Your task to perform on an android device: Open settings Image 0: 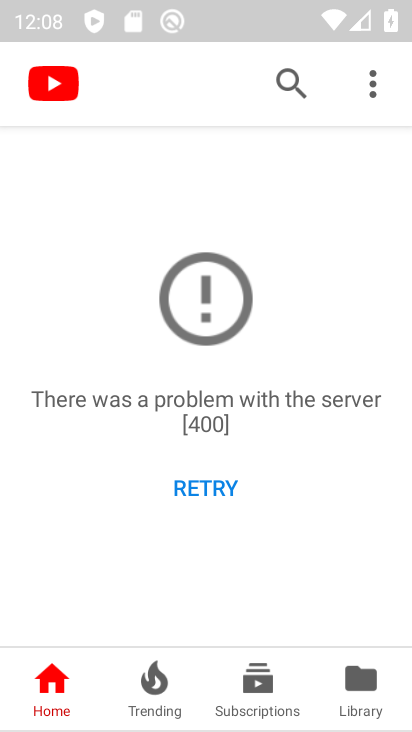
Step 0: press back button
Your task to perform on an android device: Open settings Image 1: 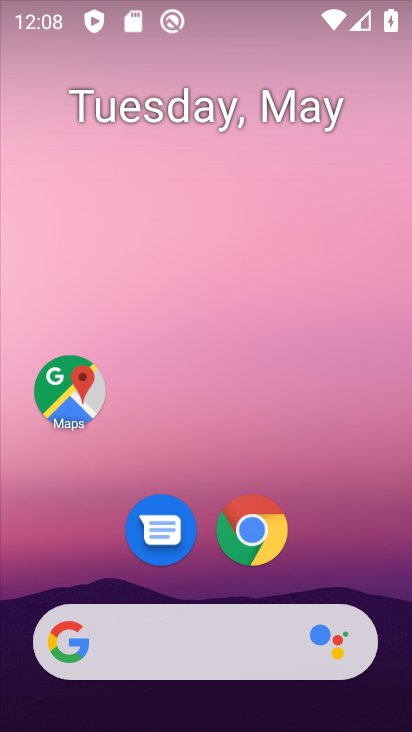
Step 1: drag from (380, 580) to (288, 20)
Your task to perform on an android device: Open settings Image 2: 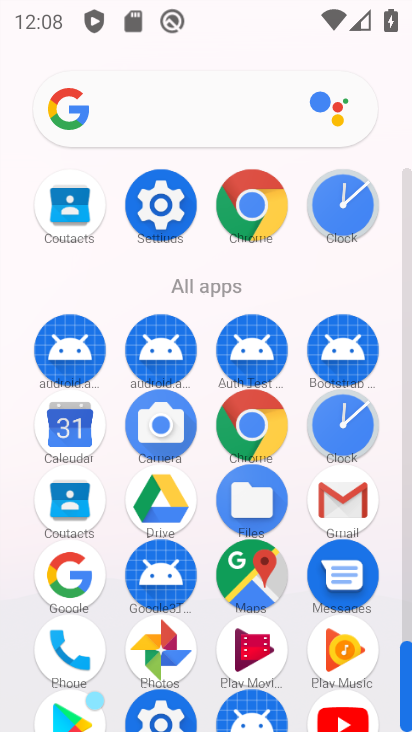
Step 2: click (157, 199)
Your task to perform on an android device: Open settings Image 3: 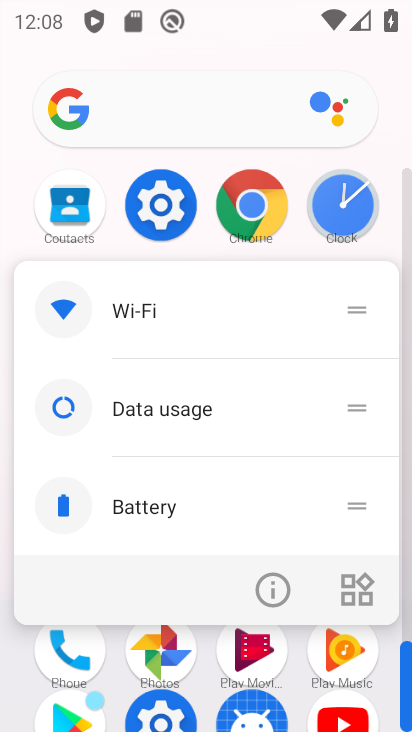
Step 3: click (157, 199)
Your task to perform on an android device: Open settings Image 4: 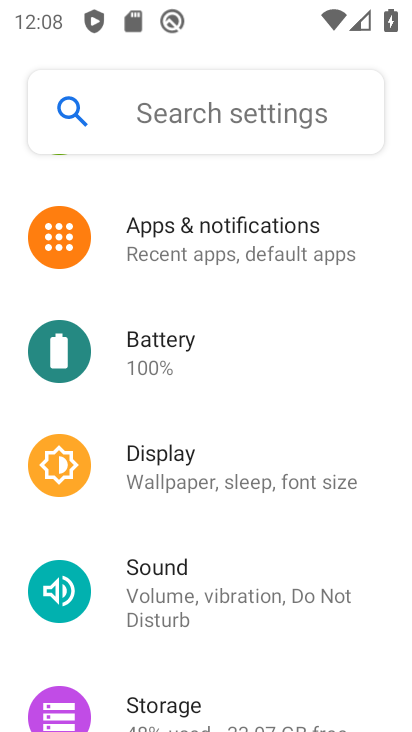
Step 4: task complete